Your task to perform on an android device: Open Google Maps Image 0: 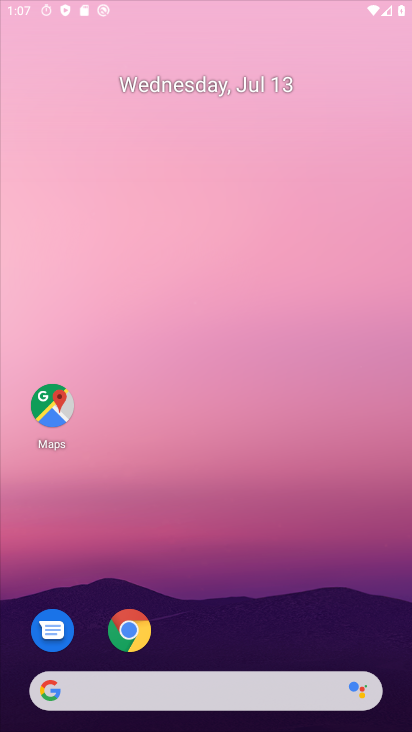
Step 0: click (411, 99)
Your task to perform on an android device: Open Google Maps Image 1: 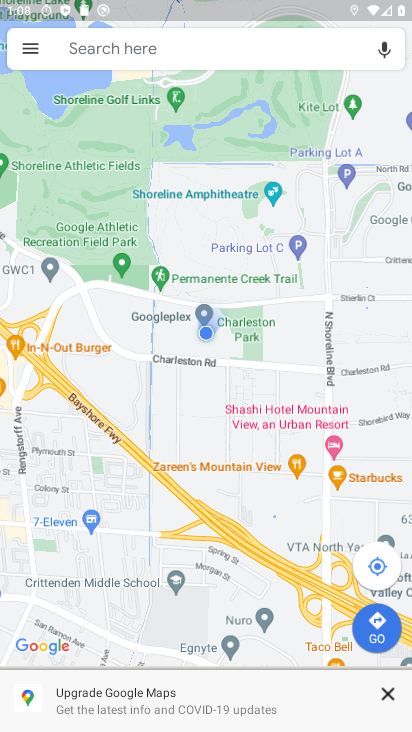
Step 1: task complete